Your task to perform on an android device: Go to display settings Image 0: 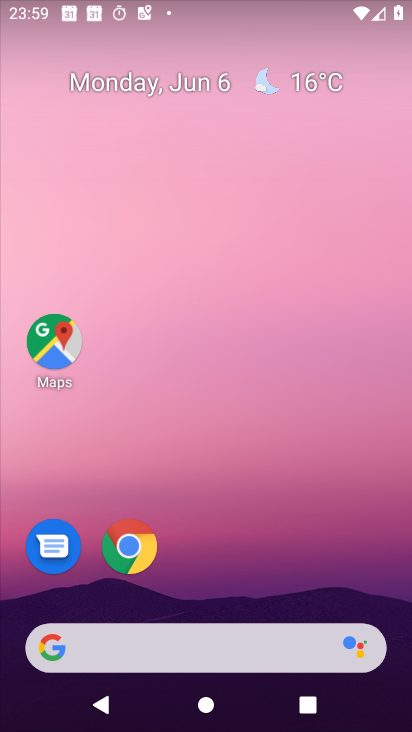
Step 0: drag from (202, 555) to (251, 271)
Your task to perform on an android device: Go to display settings Image 1: 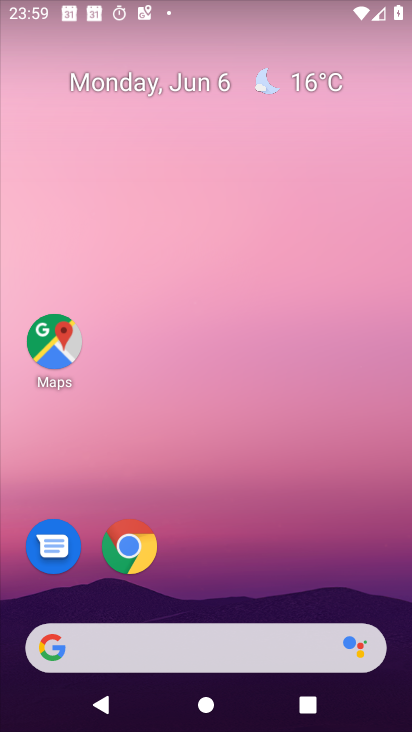
Step 1: drag from (215, 601) to (276, 70)
Your task to perform on an android device: Go to display settings Image 2: 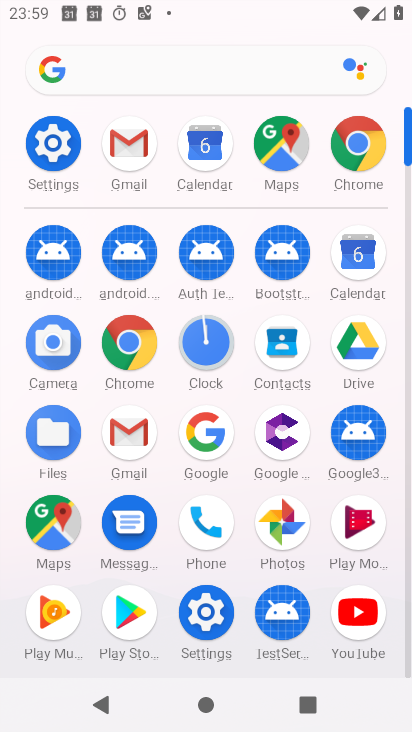
Step 2: click (43, 168)
Your task to perform on an android device: Go to display settings Image 3: 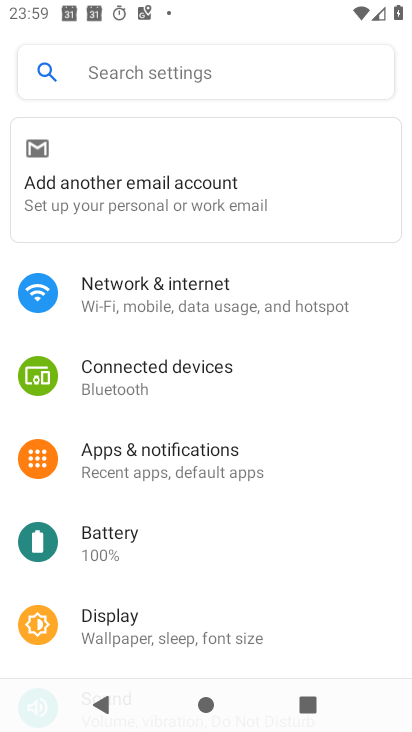
Step 3: click (128, 611)
Your task to perform on an android device: Go to display settings Image 4: 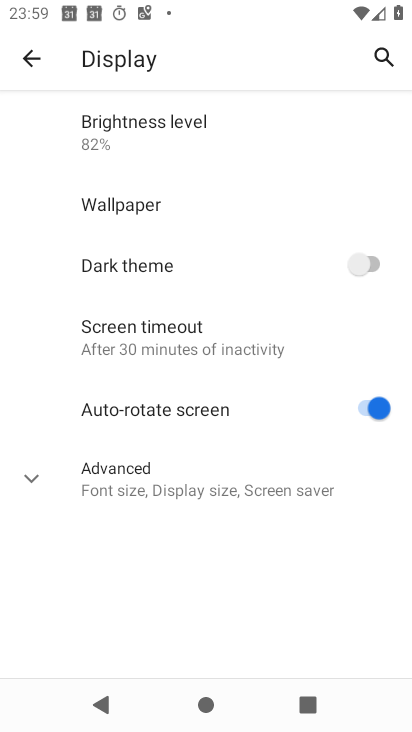
Step 4: task complete